Your task to perform on an android device: move a message to another label in the gmail app Image 0: 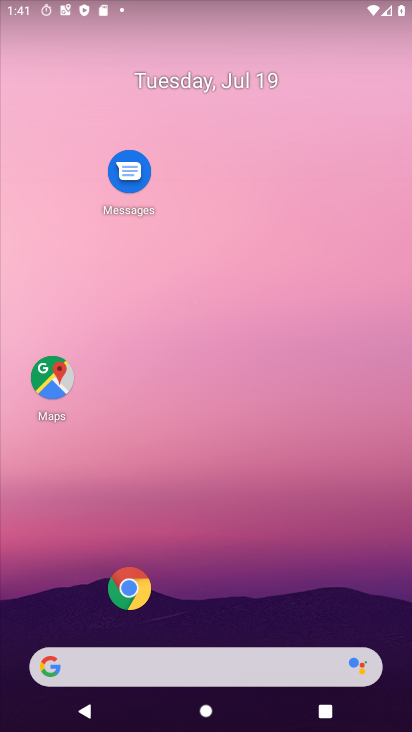
Step 0: drag from (10, 650) to (202, 70)
Your task to perform on an android device: move a message to another label in the gmail app Image 1: 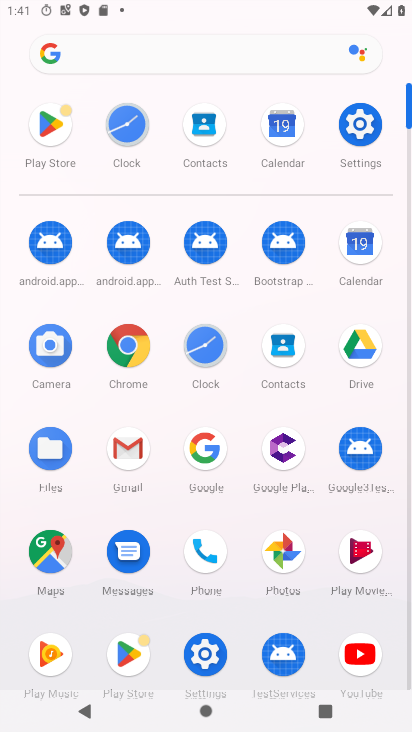
Step 1: click (117, 456)
Your task to perform on an android device: move a message to another label in the gmail app Image 2: 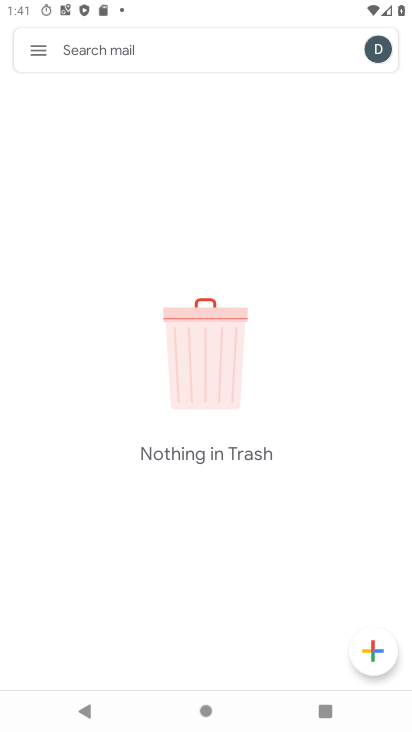
Step 2: click (36, 52)
Your task to perform on an android device: move a message to another label in the gmail app Image 3: 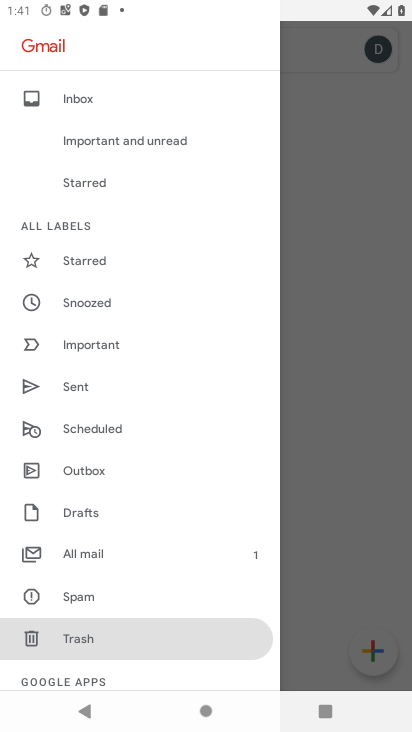
Step 3: click (98, 95)
Your task to perform on an android device: move a message to another label in the gmail app Image 4: 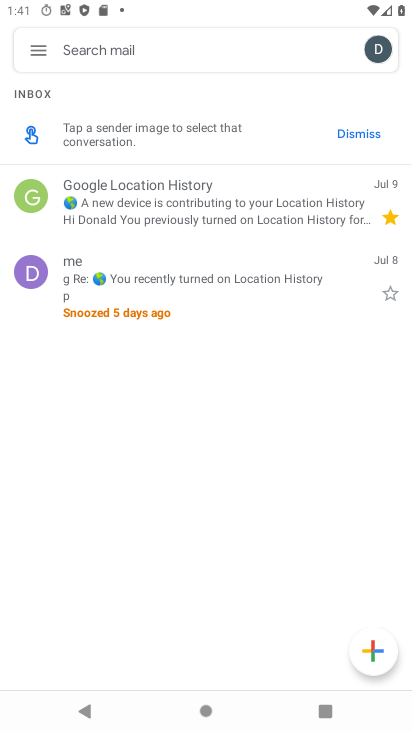
Step 4: task complete